Your task to perform on an android device: Open the calendar app, open the side menu, and click the "Day" option Image 0: 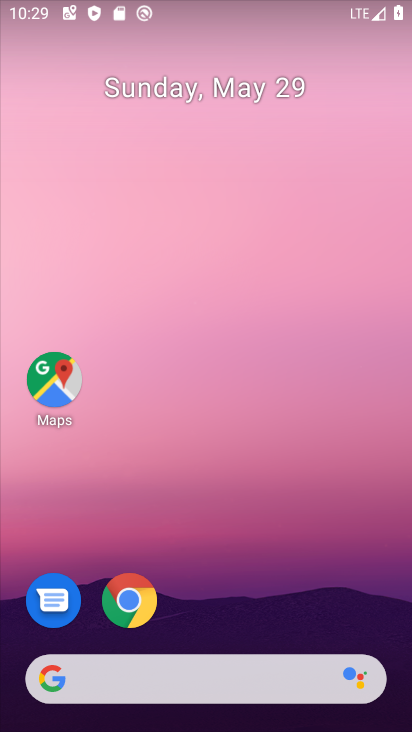
Step 0: drag from (235, 605) to (227, 88)
Your task to perform on an android device: Open the calendar app, open the side menu, and click the "Day" option Image 1: 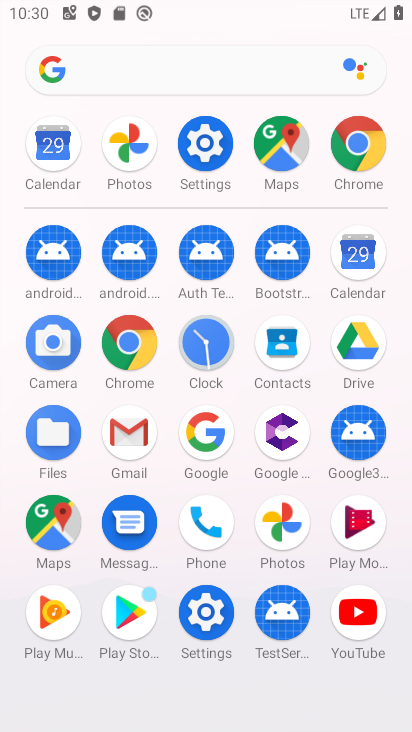
Step 1: click (352, 267)
Your task to perform on an android device: Open the calendar app, open the side menu, and click the "Day" option Image 2: 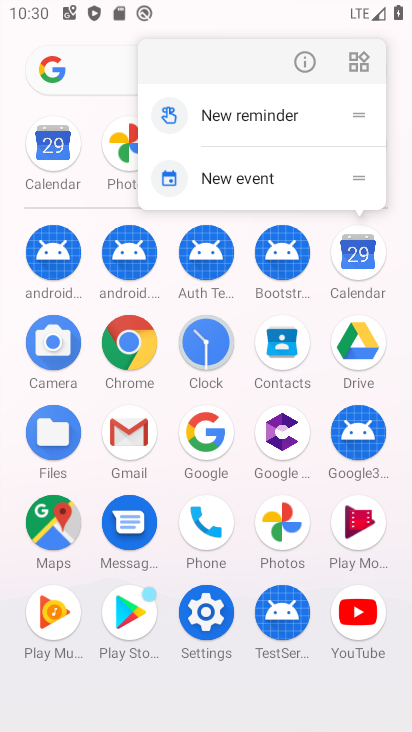
Step 2: click (350, 272)
Your task to perform on an android device: Open the calendar app, open the side menu, and click the "Day" option Image 3: 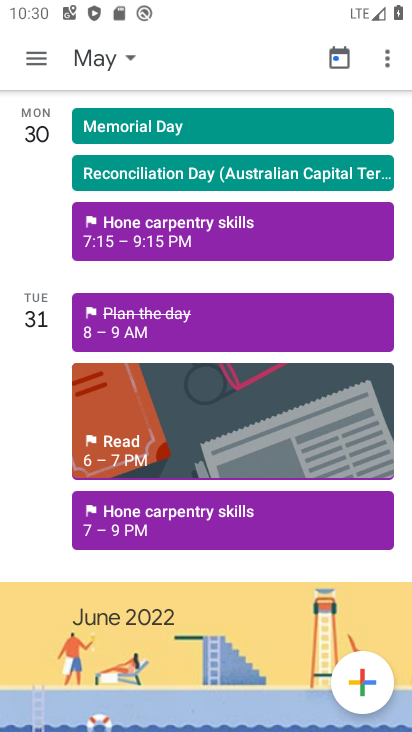
Step 3: click (41, 56)
Your task to perform on an android device: Open the calendar app, open the side menu, and click the "Day" option Image 4: 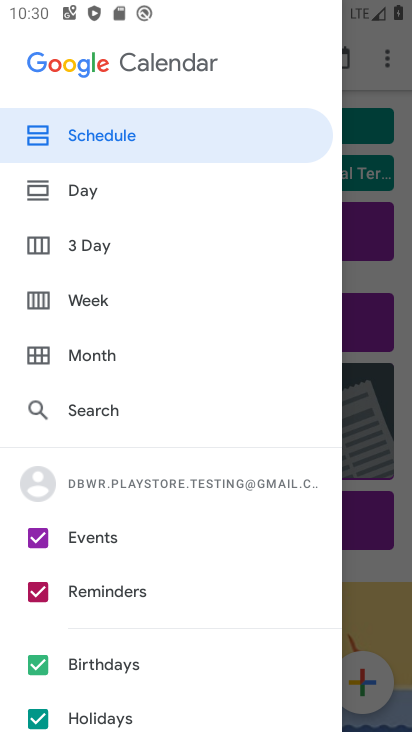
Step 4: click (81, 188)
Your task to perform on an android device: Open the calendar app, open the side menu, and click the "Day" option Image 5: 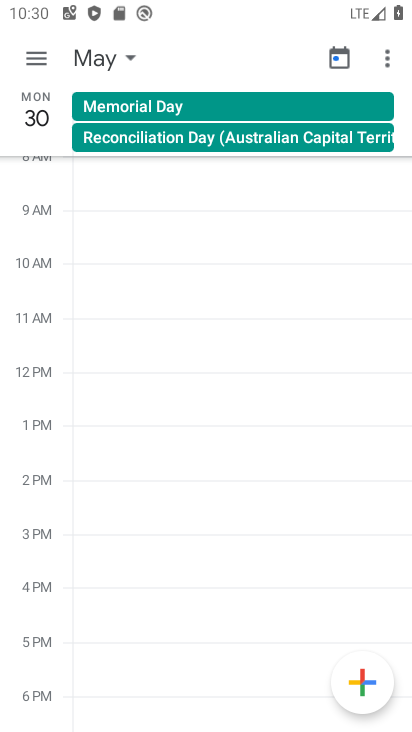
Step 5: task complete